Your task to perform on an android device: Find coffee shops on Maps Image 0: 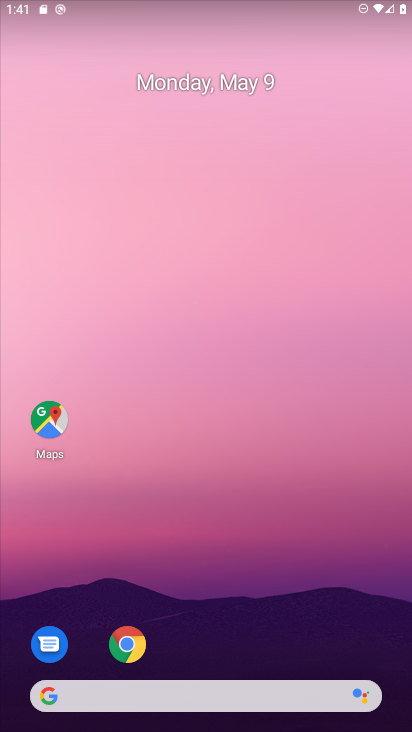
Step 0: click (47, 419)
Your task to perform on an android device: Find coffee shops on Maps Image 1: 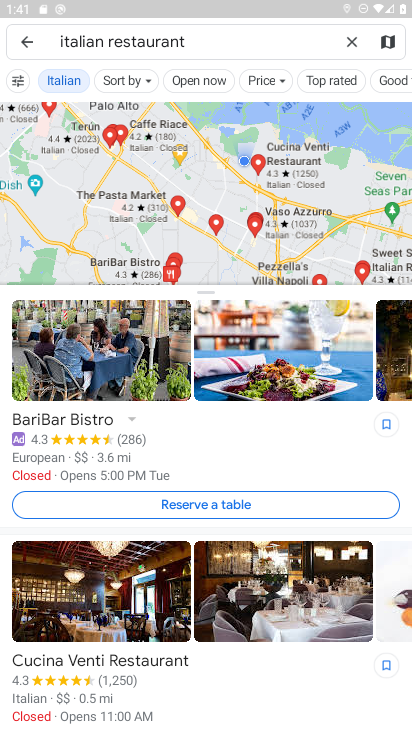
Step 1: click (344, 45)
Your task to perform on an android device: Find coffee shops on Maps Image 2: 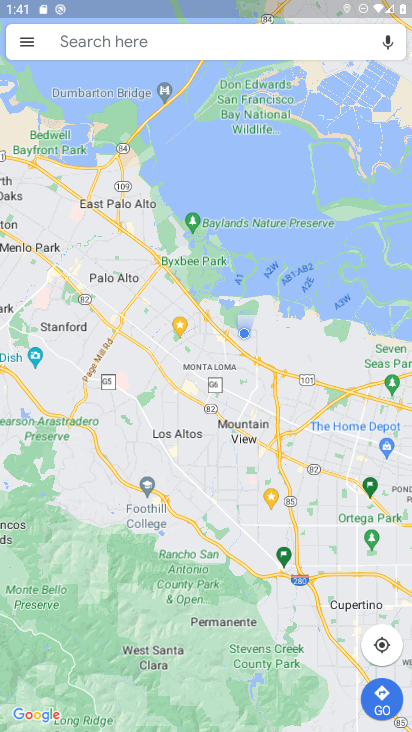
Step 2: click (127, 37)
Your task to perform on an android device: Find coffee shops on Maps Image 3: 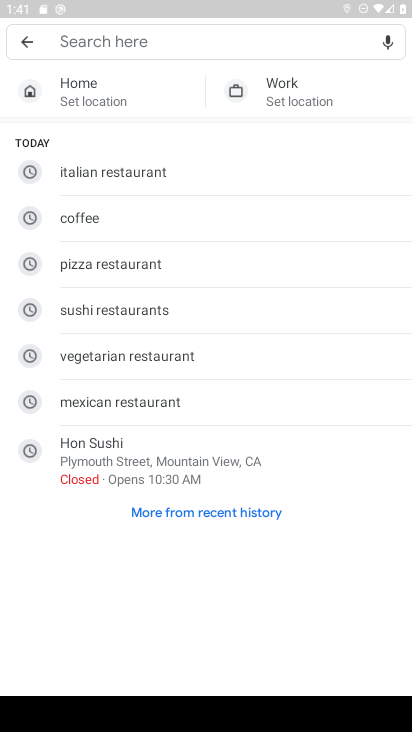
Step 3: type ""
Your task to perform on an android device: Find coffee shops on Maps Image 4: 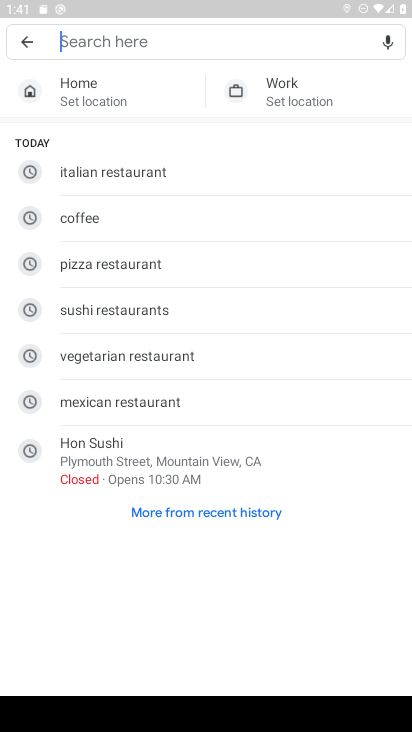
Step 4: type "coffee shops"
Your task to perform on an android device: Find coffee shops on Maps Image 5: 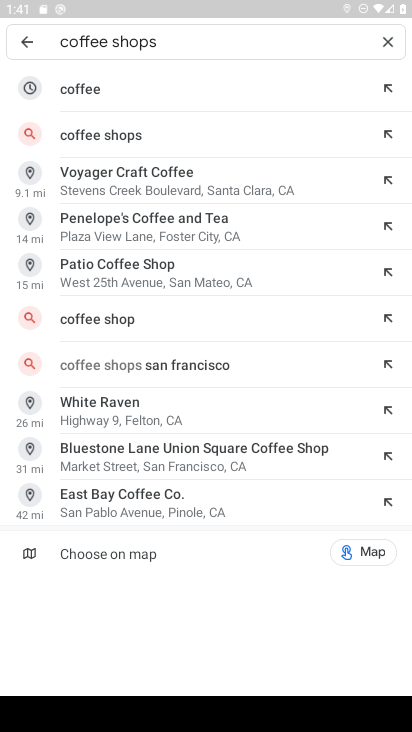
Step 5: click (121, 131)
Your task to perform on an android device: Find coffee shops on Maps Image 6: 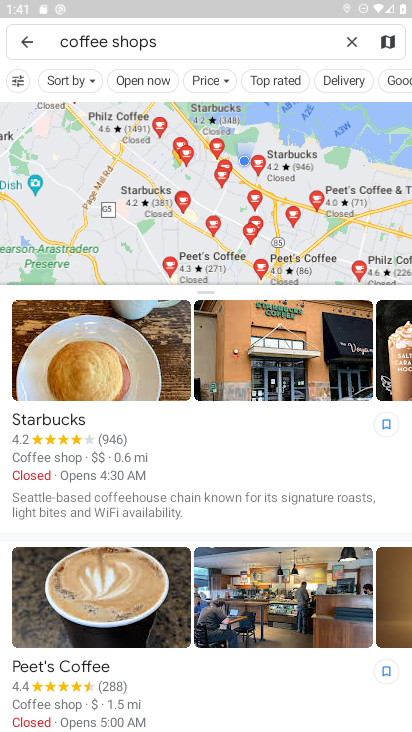
Step 6: task complete